Your task to perform on an android device: check the backup settings in the google photos Image 0: 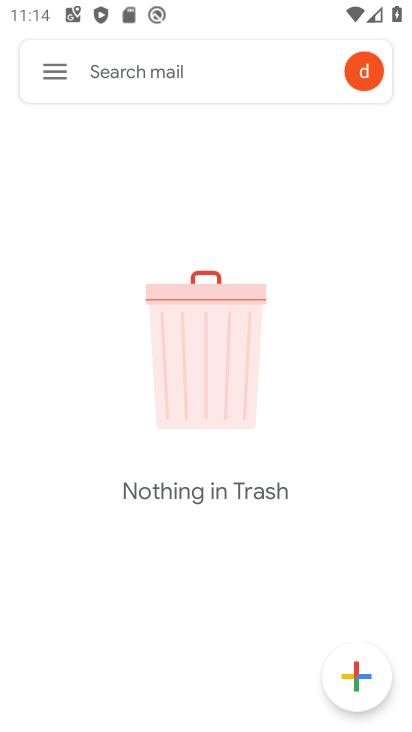
Step 0: press home button
Your task to perform on an android device: check the backup settings in the google photos Image 1: 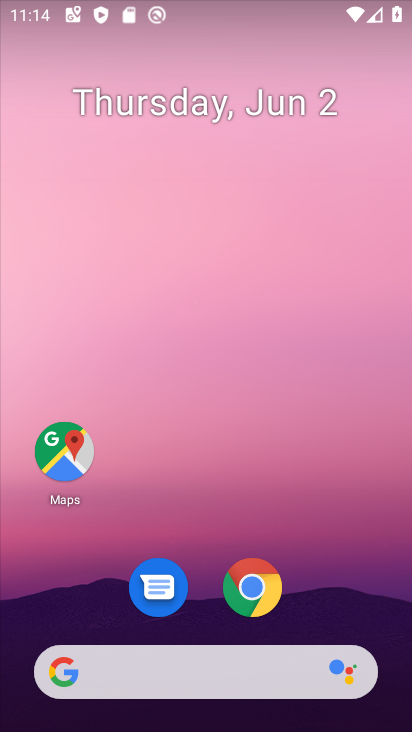
Step 1: drag from (387, 621) to (211, 141)
Your task to perform on an android device: check the backup settings in the google photos Image 2: 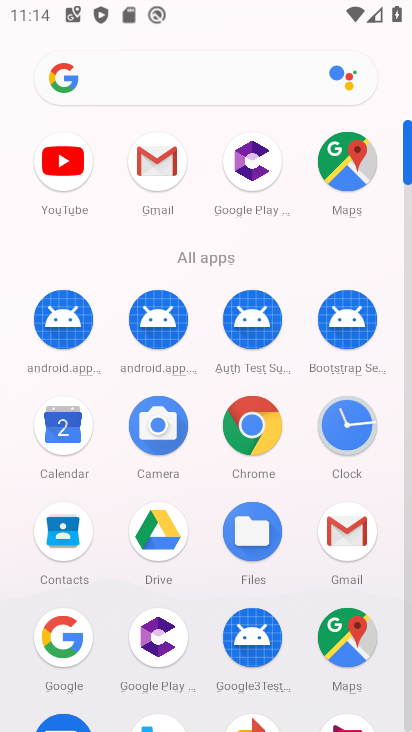
Step 2: click (409, 684)
Your task to perform on an android device: check the backup settings in the google photos Image 3: 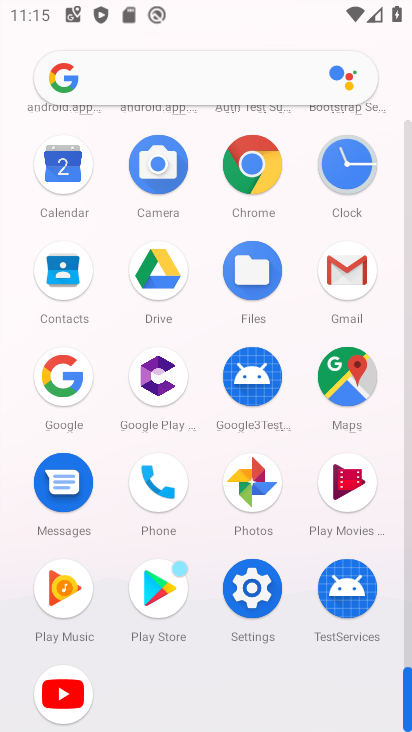
Step 3: click (254, 472)
Your task to perform on an android device: check the backup settings in the google photos Image 4: 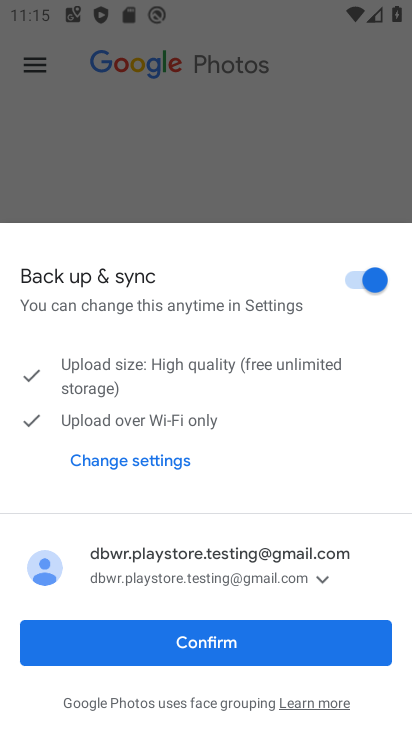
Step 4: click (216, 634)
Your task to perform on an android device: check the backup settings in the google photos Image 5: 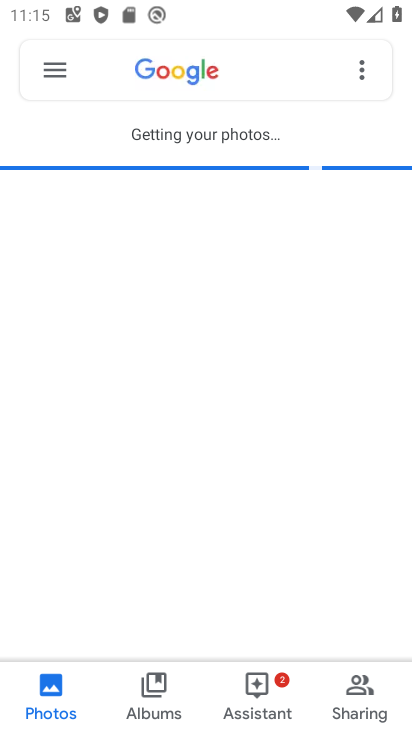
Step 5: click (56, 97)
Your task to perform on an android device: check the backup settings in the google photos Image 6: 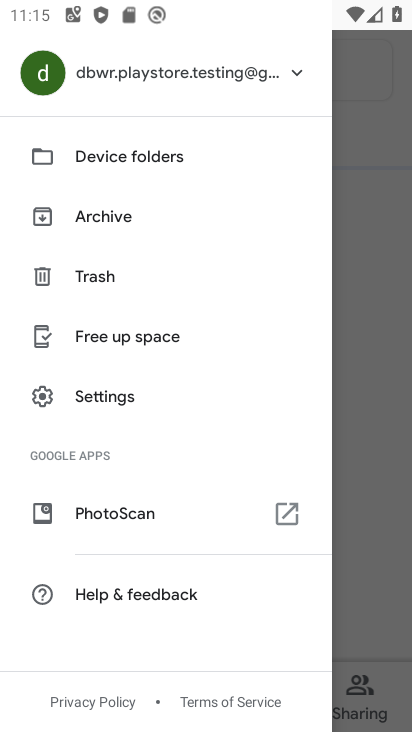
Step 6: click (136, 395)
Your task to perform on an android device: check the backup settings in the google photos Image 7: 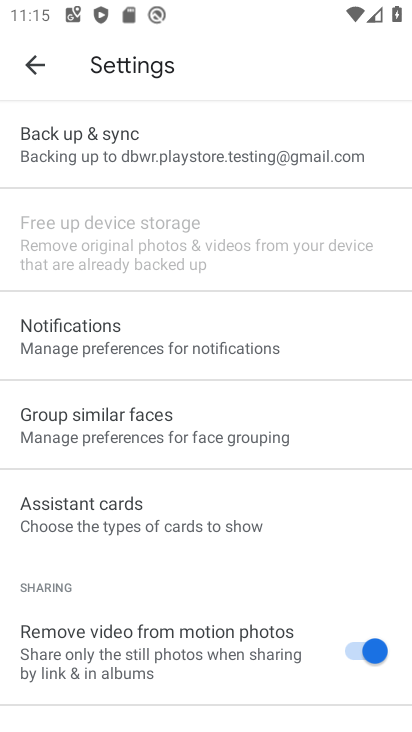
Step 7: click (66, 166)
Your task to perform on an android device: check the backup settings in the google photos Image 8: 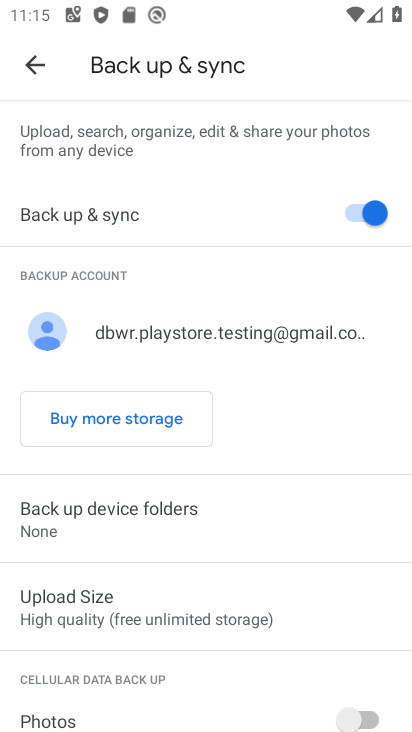
Step 8: task complete